Your task to perform on an android device: turn notification dots on Image 0: 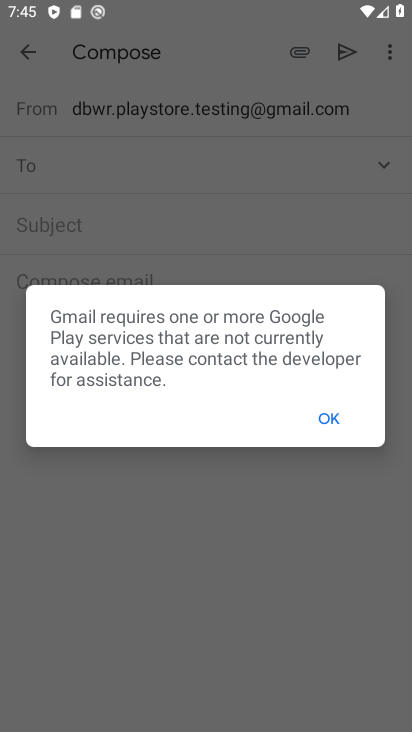
Step 0: press home button
Your task to perform on an android device: turn notification dots on Image 1: 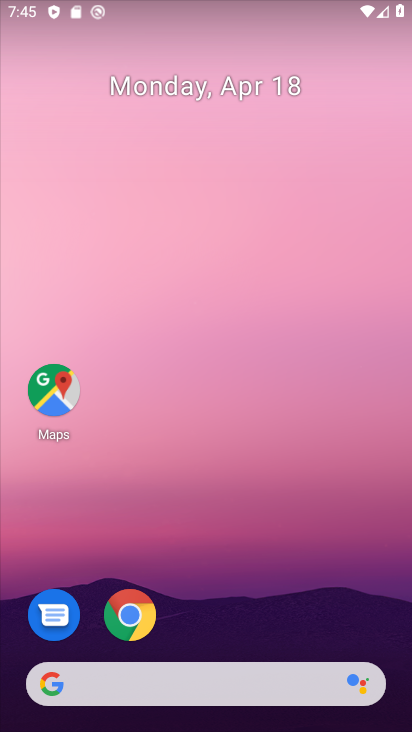
Step 1: drag from (203, 570) to (274, 85)
Your task to perform on an android device: turn notification dots on Image 2: 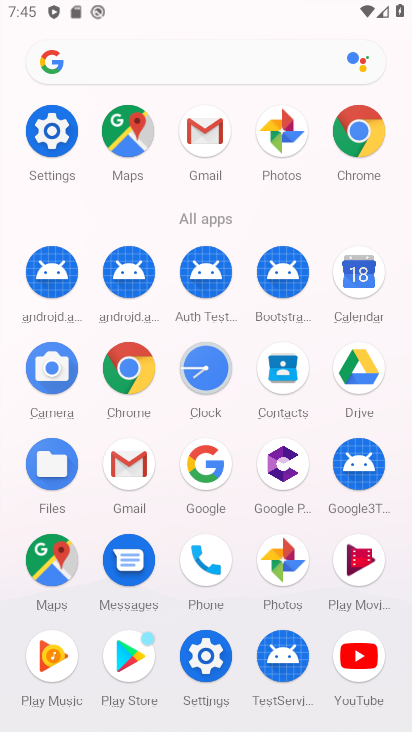
Step 2: click (39, 139)
Your task to perform on an android device: turn notification dots on Image 3: 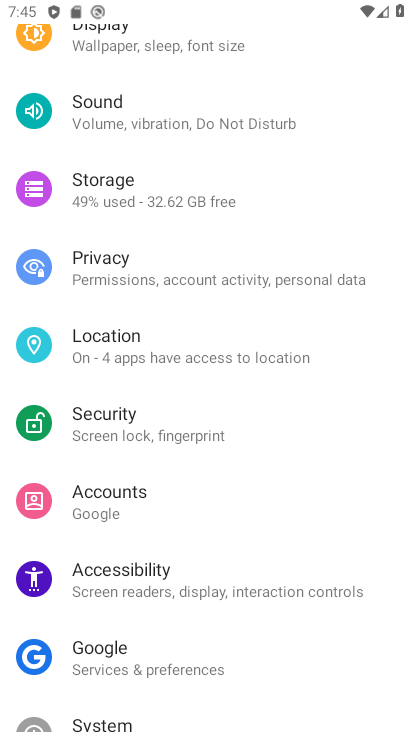
Step 3: drag from (192, 169) to (152, 567)
Your task to perform on an android device: turn notification dots on Image 4: 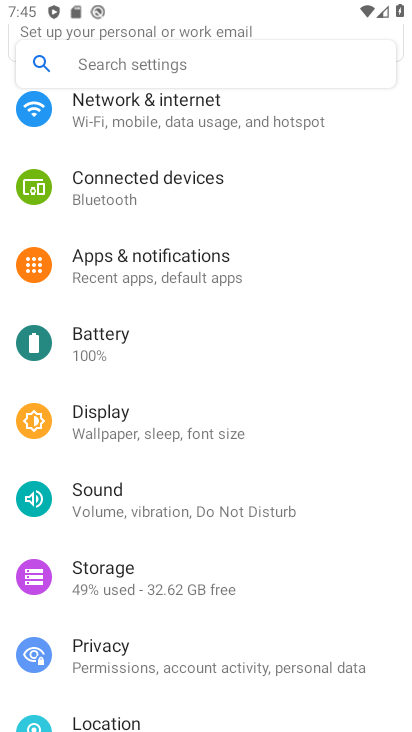
Step 4: click (230, 260)
Your task to perform on an android device: turn notification dots on Image 5: 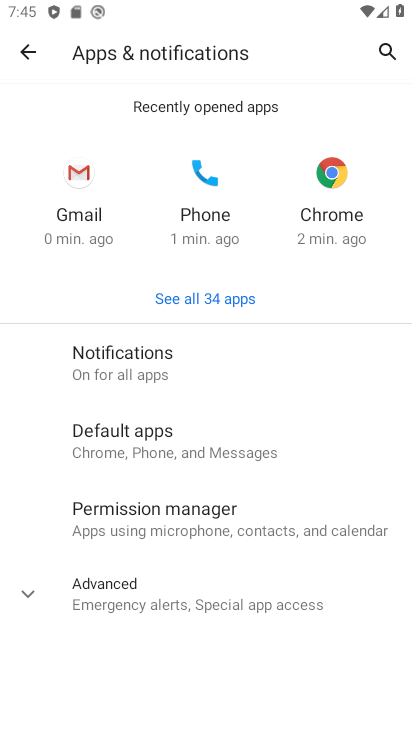
Step 5: click (168, 371)
Your task to perform on an android device: turn notification dots on Image 6: 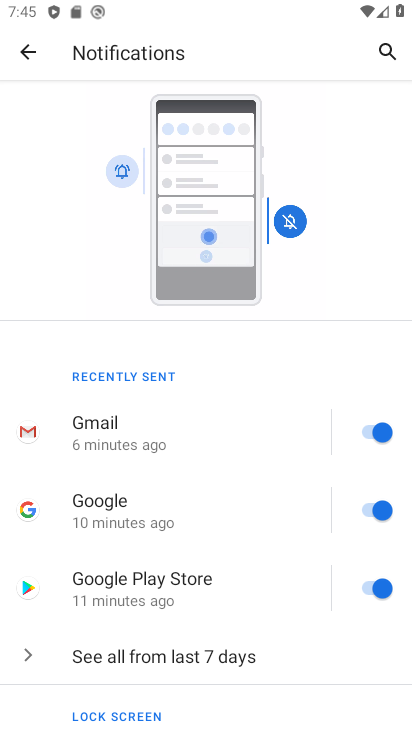
Step 6: drag from (221, 557) to (308, 246)
Your task to perform on an android device: turn notification dots on Image 7: 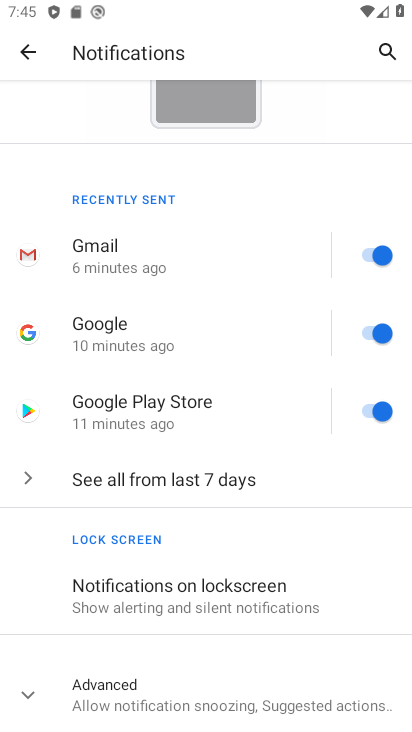
Step 7: drag from (217, 552) to (244, 249)
Your task to perform on an android device: turn notification dots on Image 8: 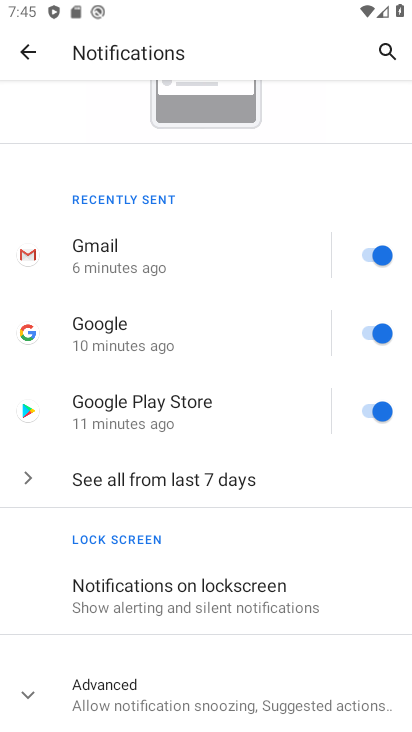
Step 8: drag from (206, 521) to (245, 270)
Your task to perform on an android device: turn notification dots on Image 9: 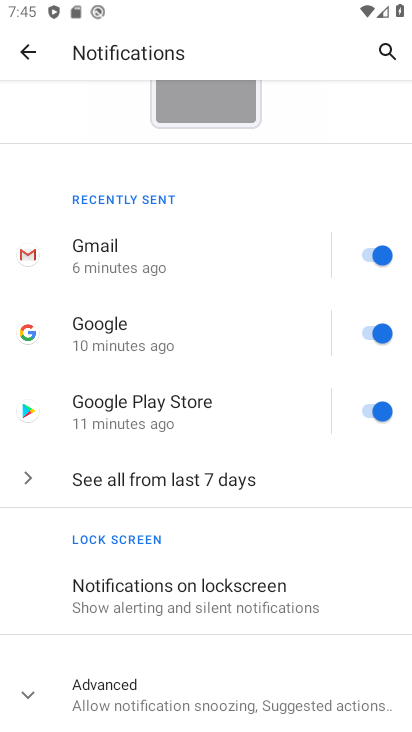
Step 9: click (20, 688)
Your task to perform on an android device: turn notification dots on Image 10: 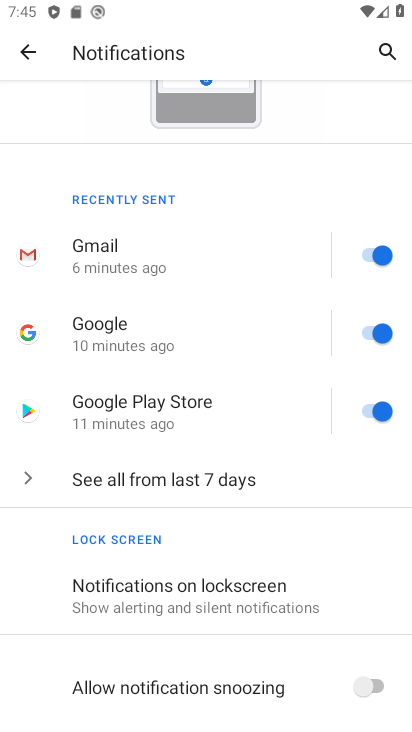
Step 10: task complete